Your task to perform on an android device: Open Chrome and go to the settings page Image 0: 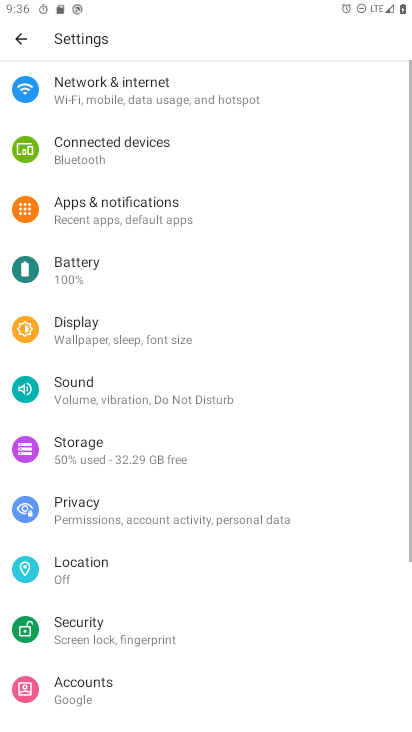
Step 0: press home button
Your task to perform on an android device: Open Chrome and go to the settings page Image 1: 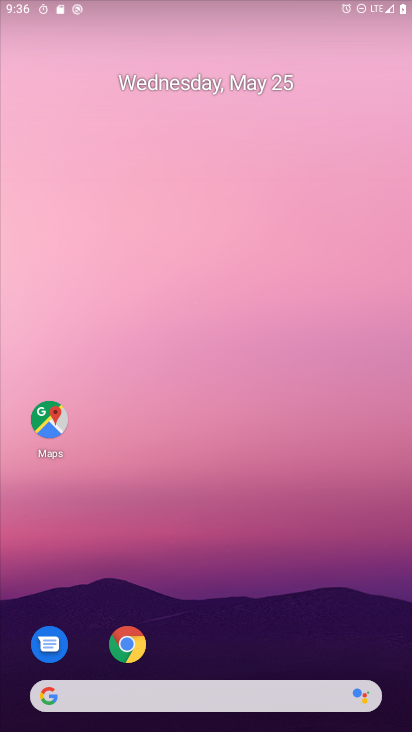
Step 1: drag from (359, 633) to (334, 59)
Your task to perform on an android device: Open Chrome and go to the settings page Image 2: 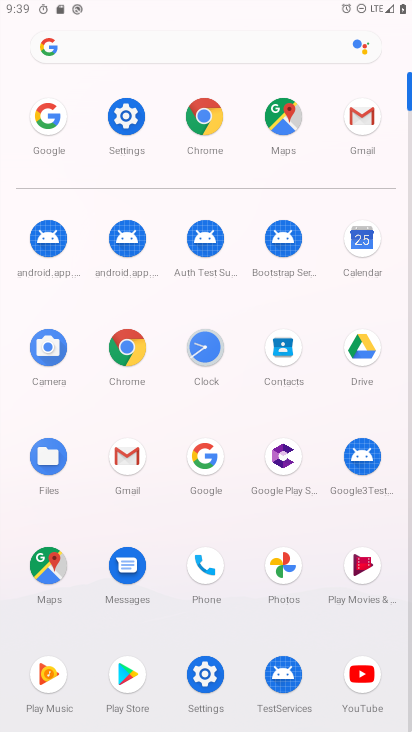
Step 2: click (133, 355)
Your task to perform on an android device: Open Chrome and go to the settings page Image 3: 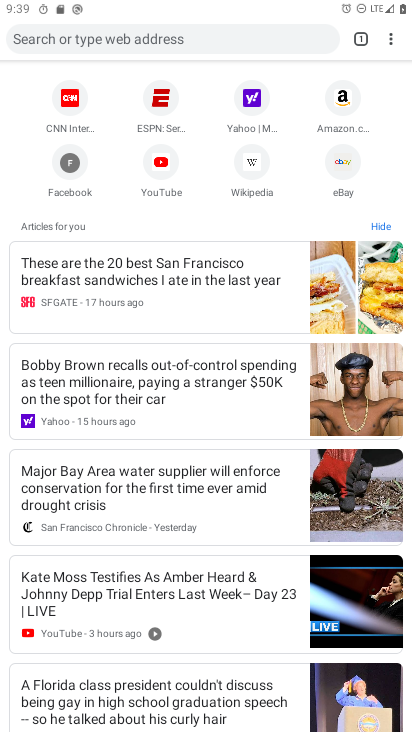
Step 3: click (387, 34)
Your task to perform on an android device: Open Chrome and go to the settings page Image 4: 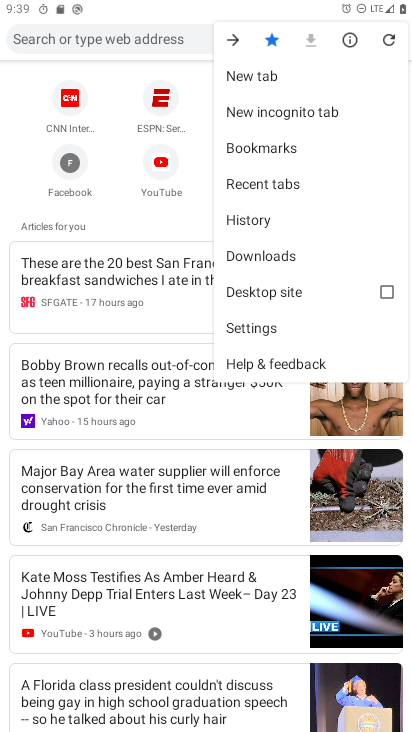
Step 4: click (299, 335)
Your task to perform on an android device: Open Chrome and go to the settings page Image 5: 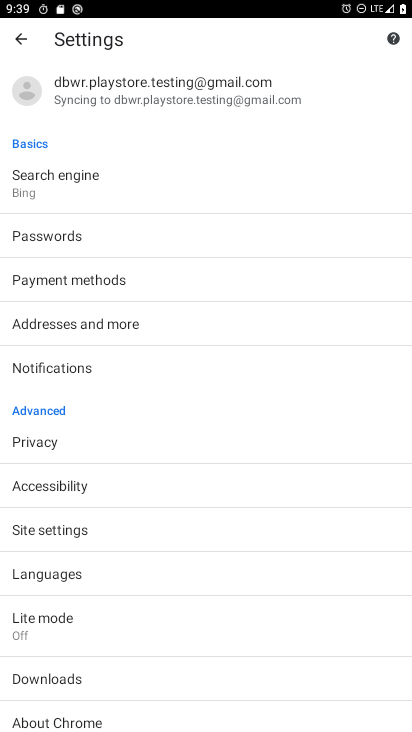
Step 5: task complete